Your task to perform on an android device: change notifications settings Image 0: 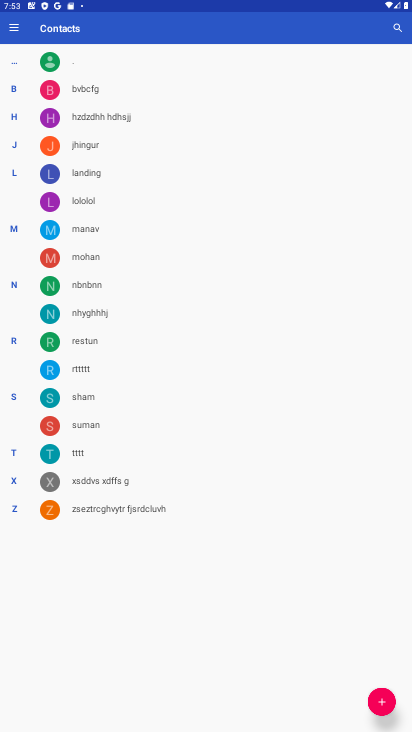
Step 0: press home button
Your task to perform on an android device: change notifications settings Image 1: 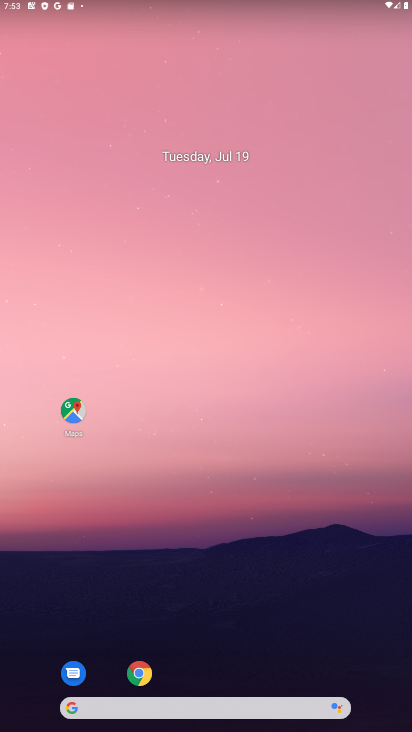
Step 1: drag from (257, 658) to (270, 39)
Your task to perform on an android device: change notifications settings Image 2: 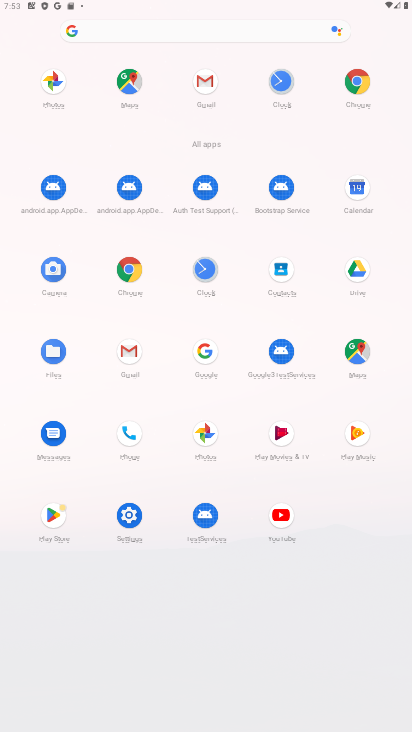
Step 2: click (134, 528)
Your task to perform on an android device: change notifications settings Image 3: 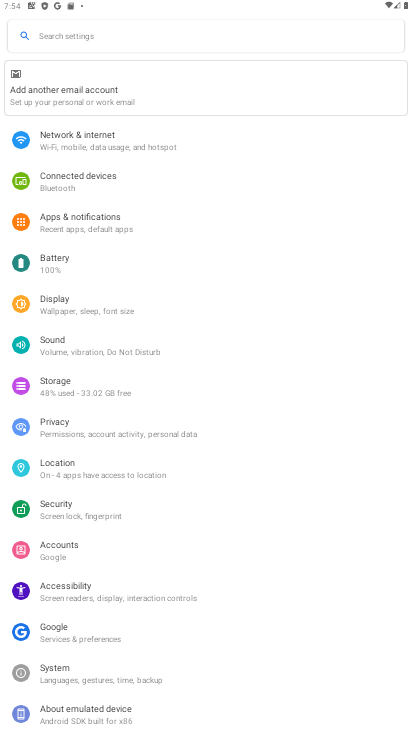
Step 3: click (69, 206)
Your task to perform on an android device: change notifications settings Image 4: 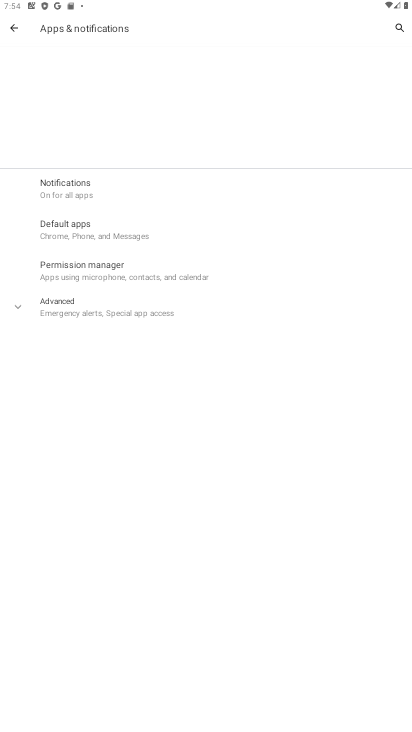
Step 4: task complete